Your task to perform on an android device: toggle notifications settings in the gmail app Image 0: 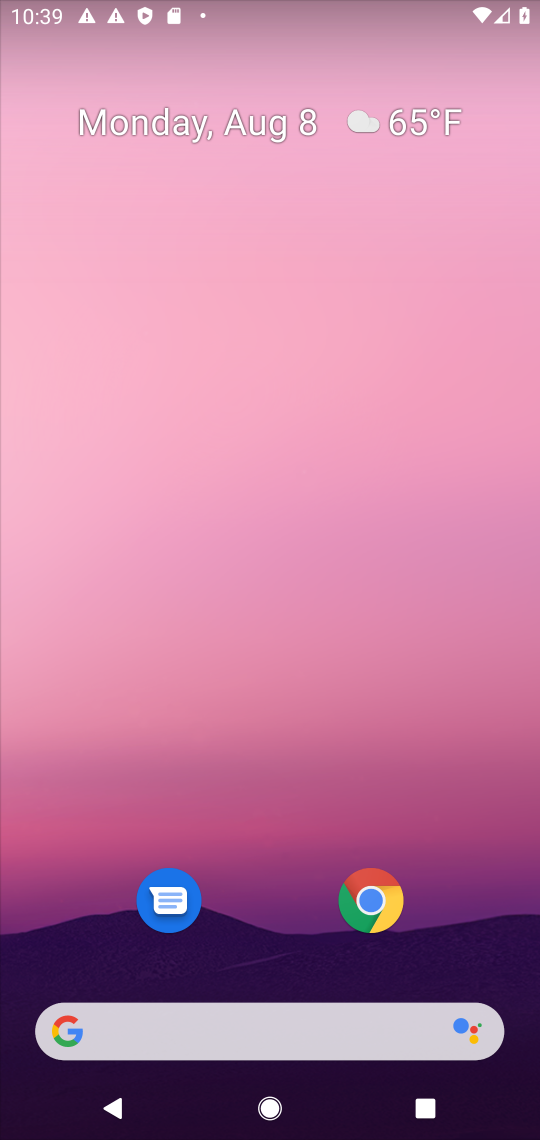
Step 0: drag from (254, 529) to (254, 14)
Your task to perform on an android device: toggle notifications settings in the gmail app Image 1: 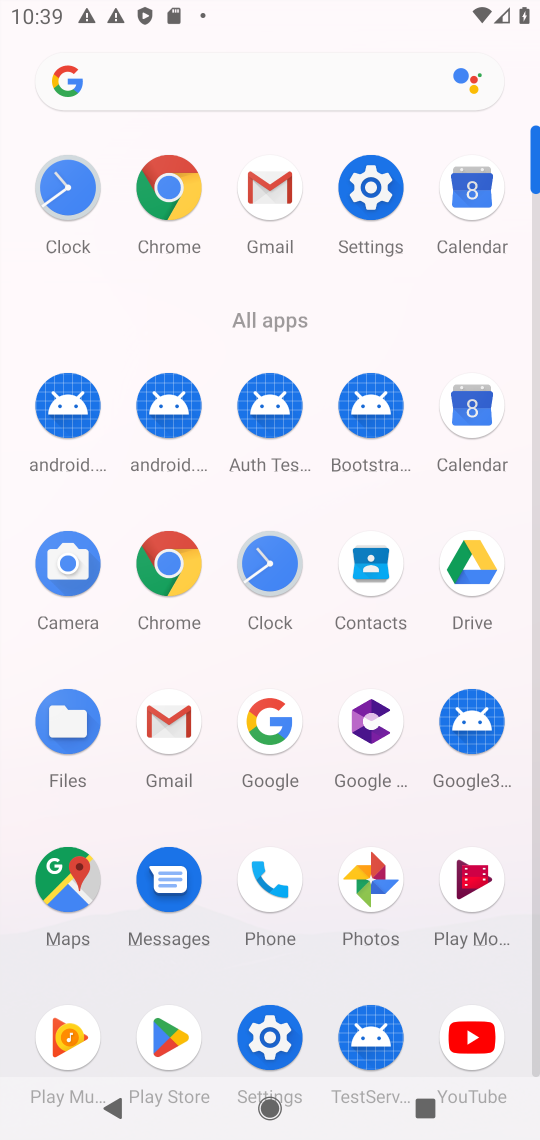
Step 1: click (264, 197)
Your task to perform on an android device: toggle notifications settings in the gmail app Image 2: 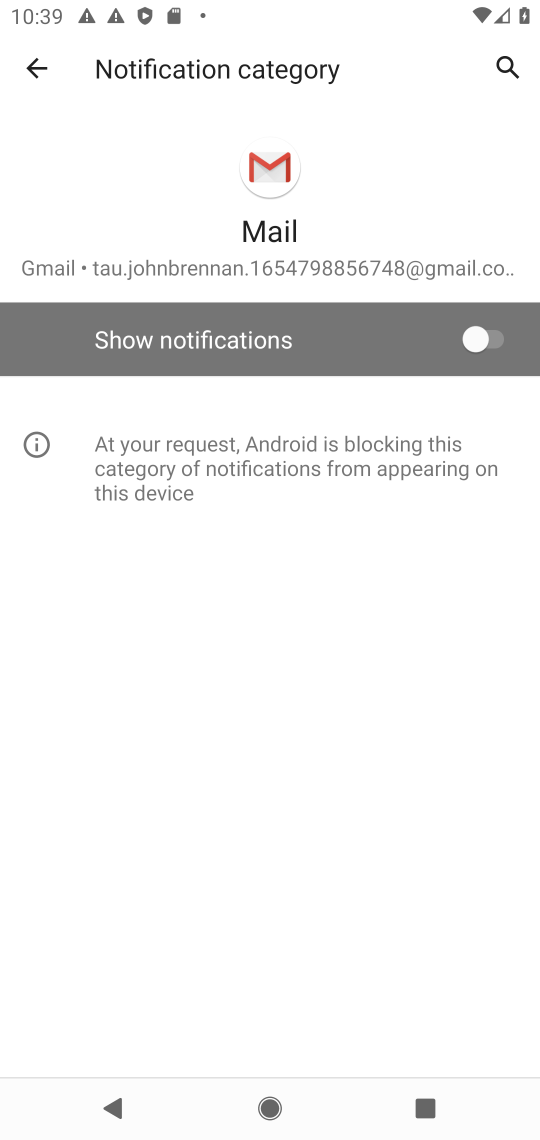
Step 2: click (508, 341)
Your task to perform on an android device: toggle notifications settings in the gmail app Image 3: 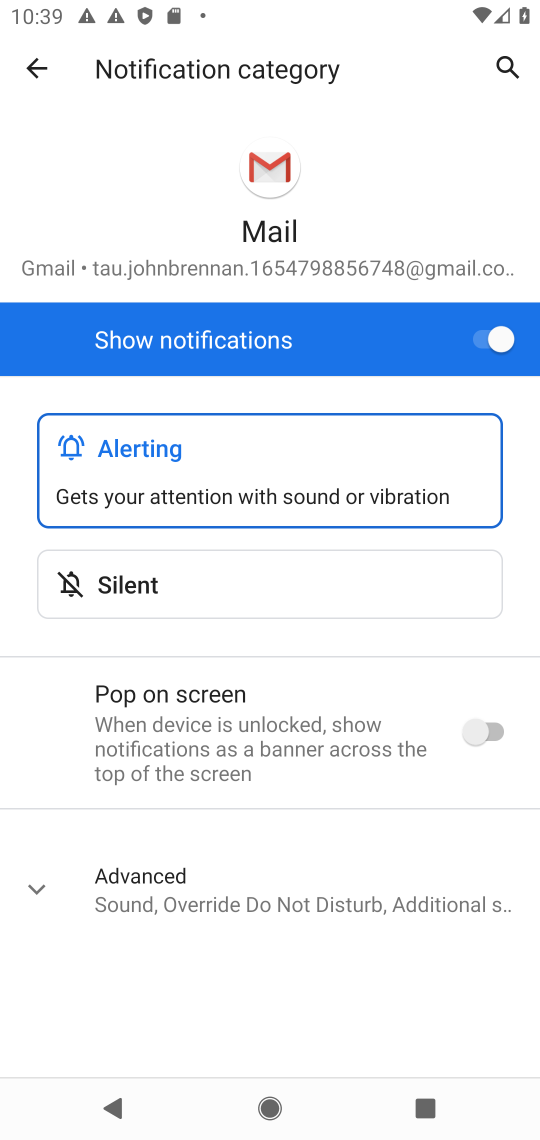
Step 3: task complete